Your task to perform on an android device: Open settings Image 0: 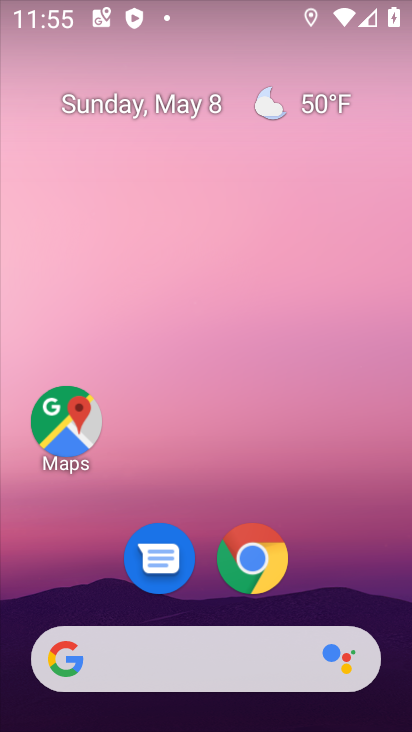
Step 0: drag from (232, 675) to (165, 168)
Your task to perform on an android device: Open settings Image 1: 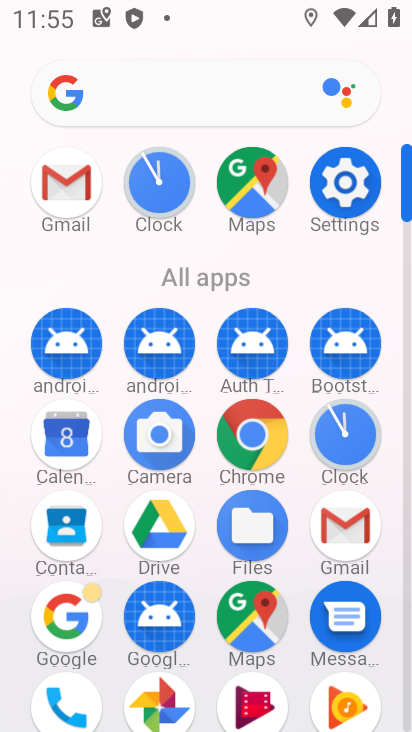
Step 1: click (342, 218)
Your task to perform on an android device: Open settings Image 2: 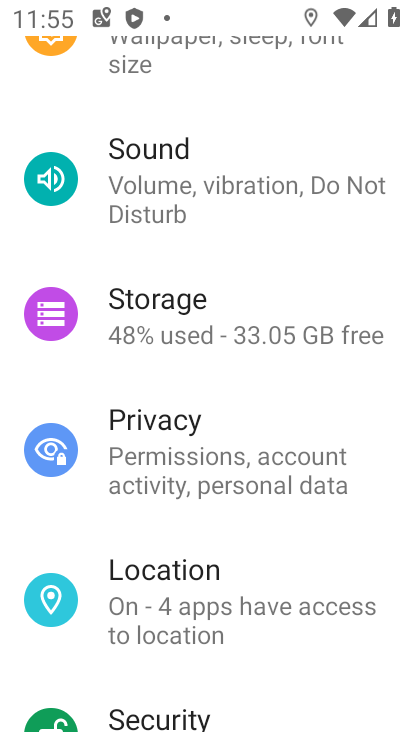
Step 2: task complete